Your task to perform on an android device: Open Wikipedia Image 0: 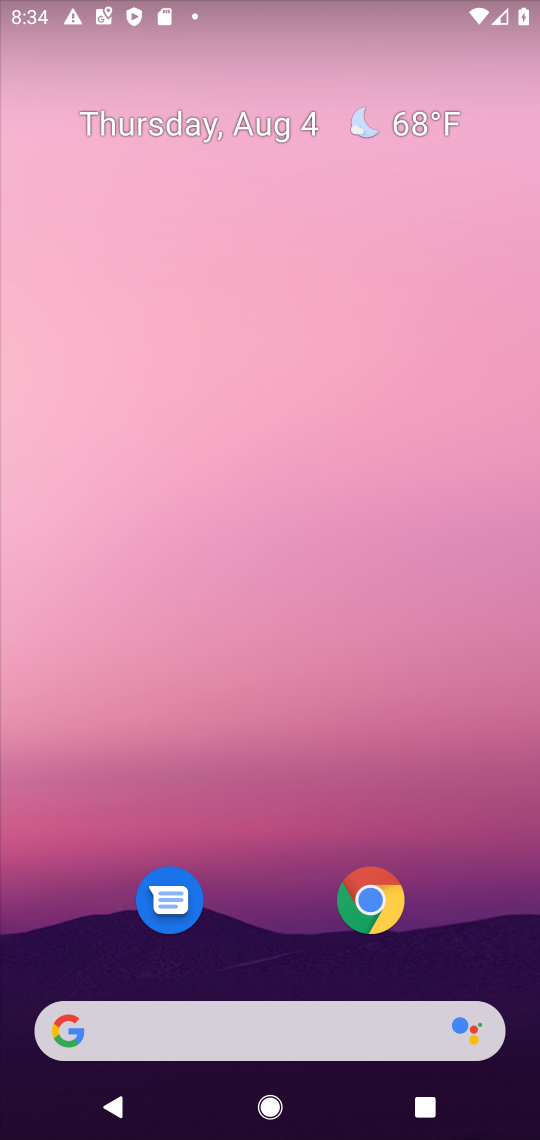
Step 0: click (382, 911)
Your task to perform on an android device: Open Wikipedia Image 1: 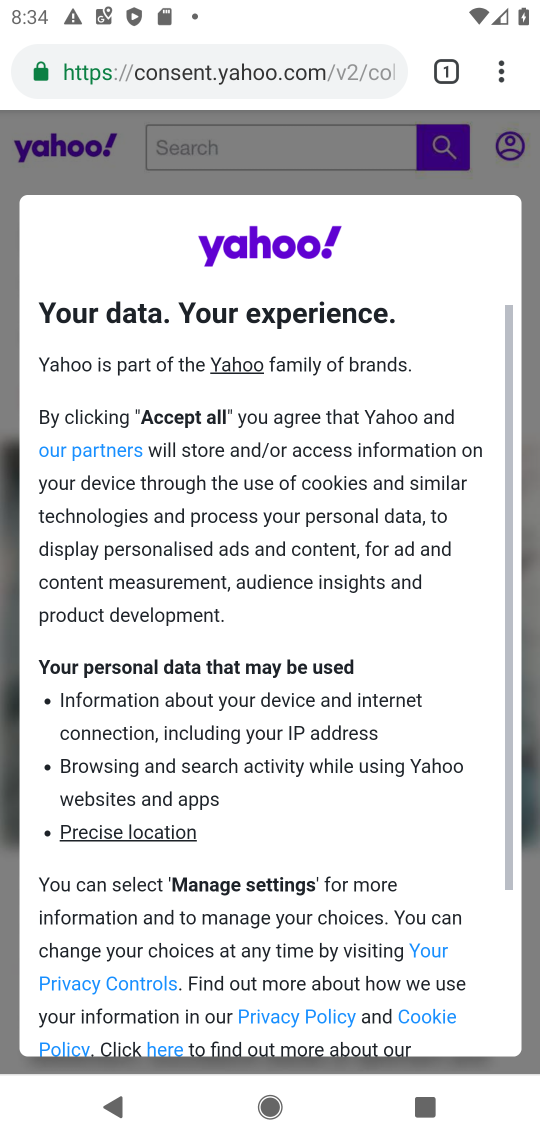
Step 1: press back button
Your task to perform on an android device: Open Wikipedia Image 2: 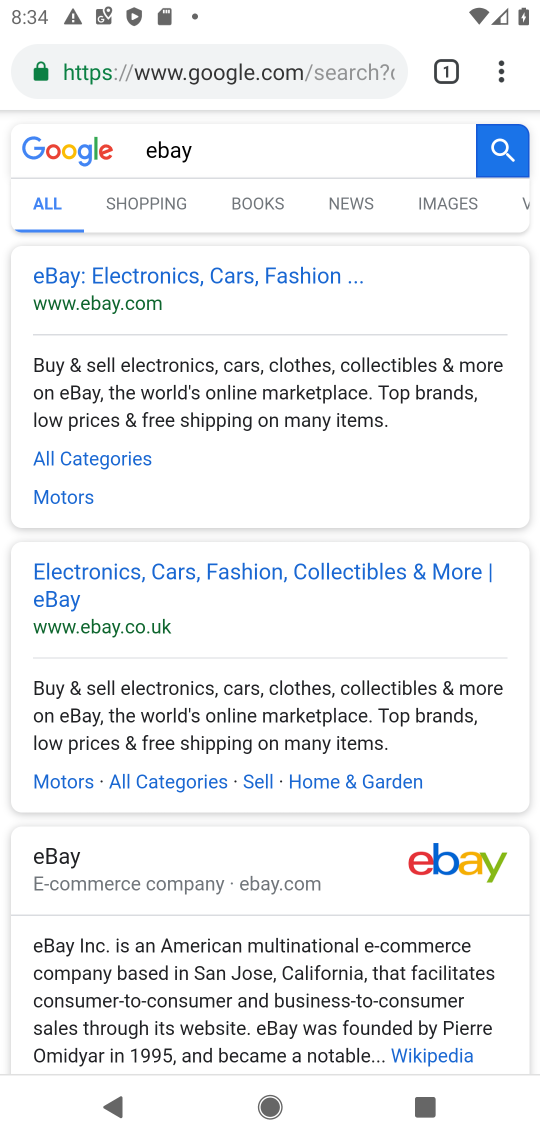
Step 2: press back button
Your task to perform on an android device: Open Wikipedia Image 3: 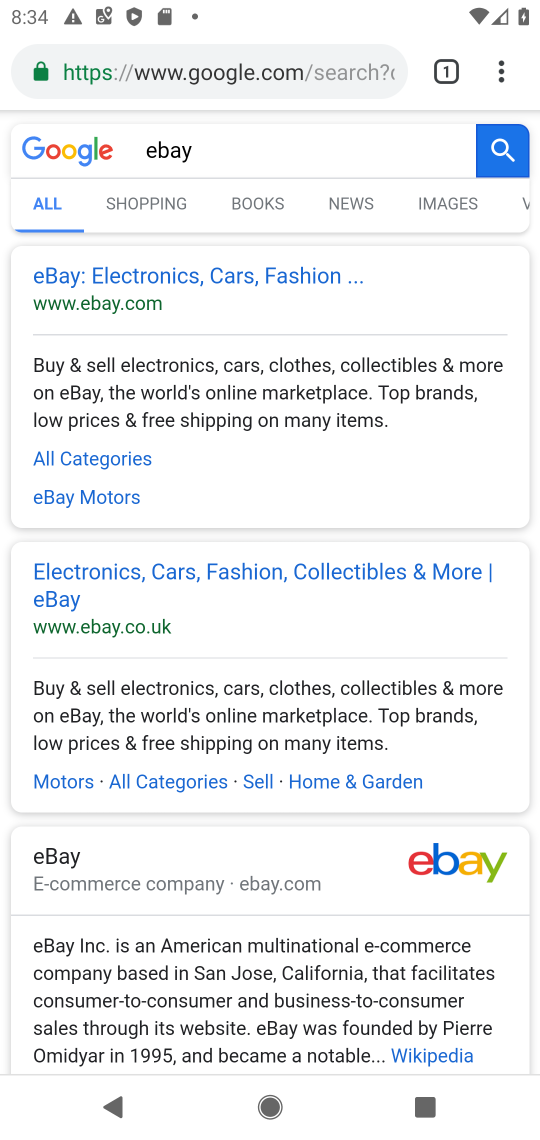
Step 3: click (309, 65)
Your task to perform on an android device: Open Wikipedia Image 4: 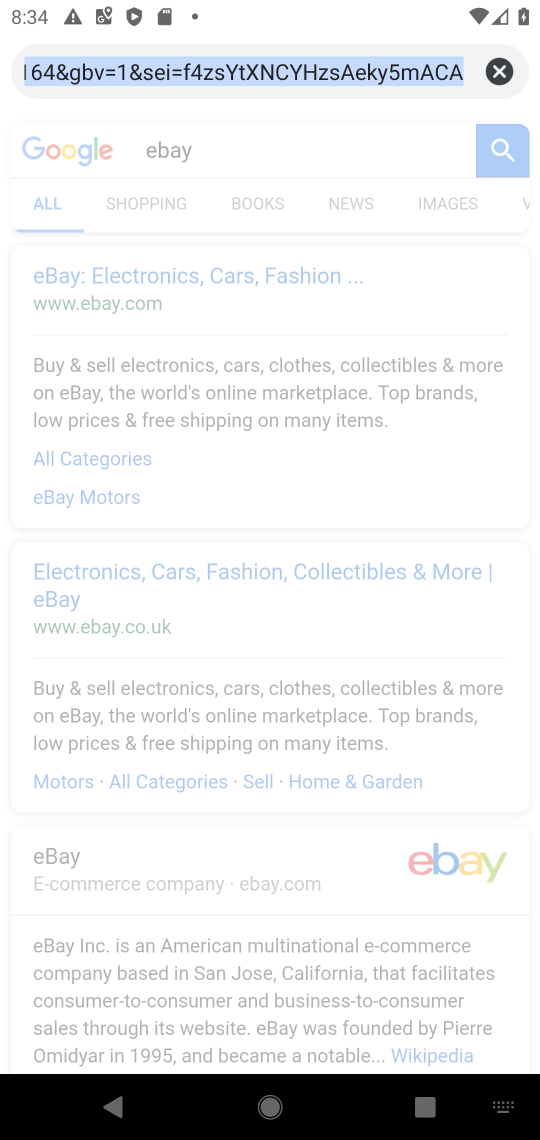
Step 4: type "www."
Your task to perform on an android device: Open Wikipedia Image 5: 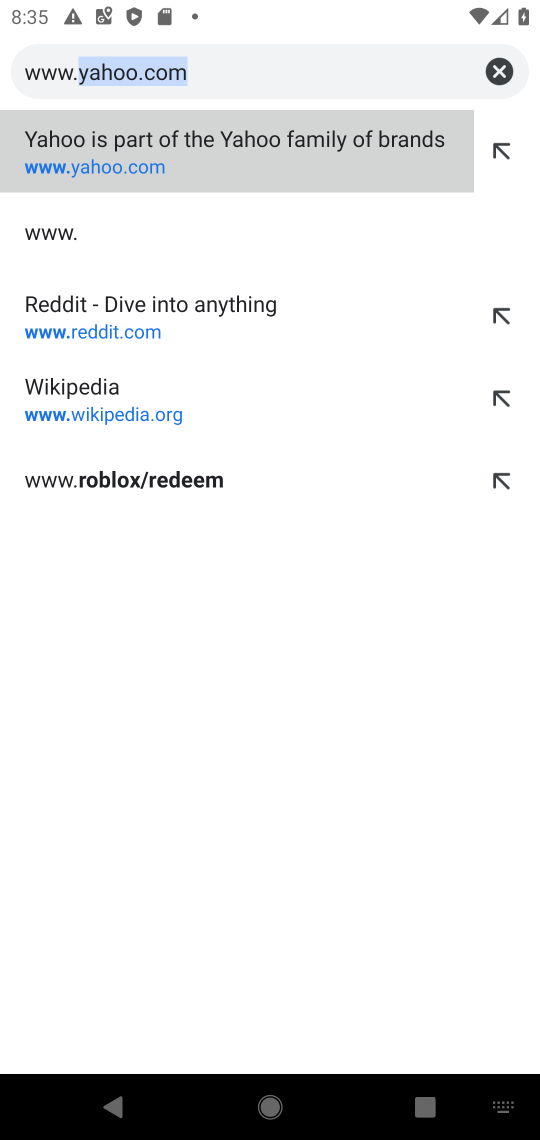
Step 5: type "Wikipedia"
Your task to perform on an android device: Open Wikipedia Image 6: 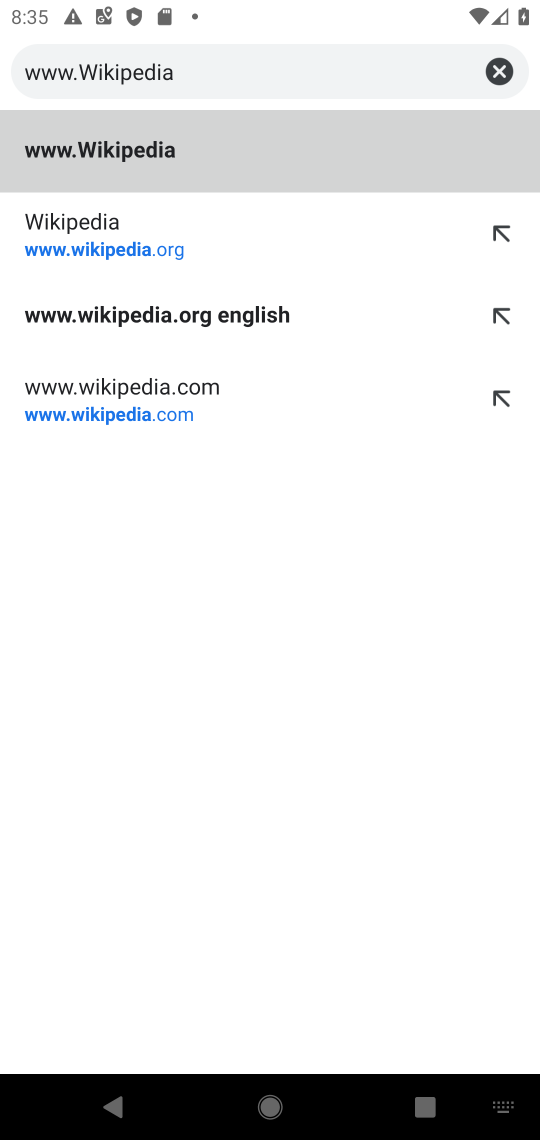
Step 6: click (92, 244)
Your task to perform on an android device: Open Wikipedia Image 7: 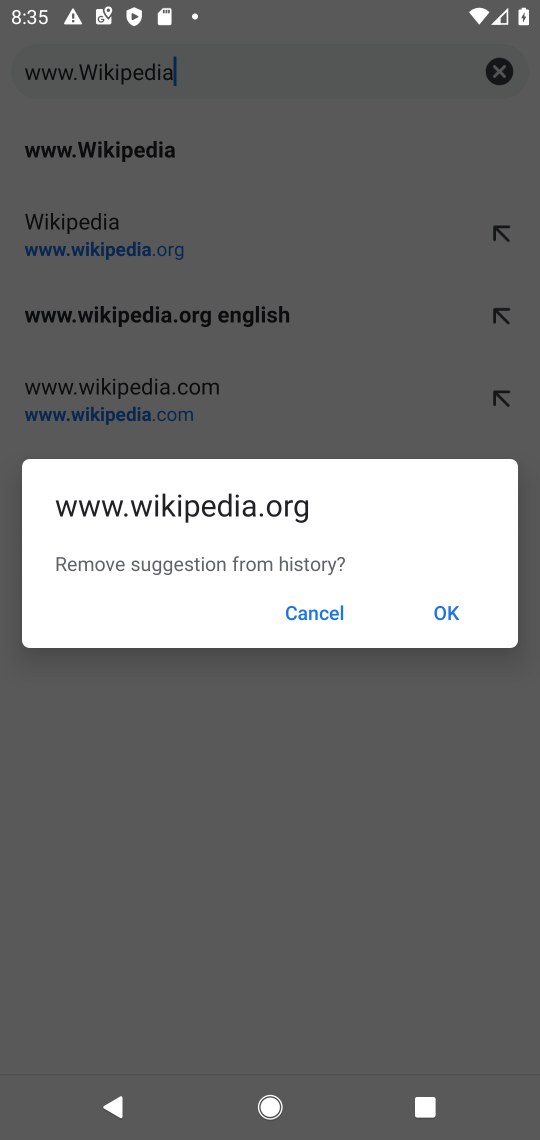
Step 7: click (307, 618)
Your task to perform on an android device: Open Wikipedia Image 8: 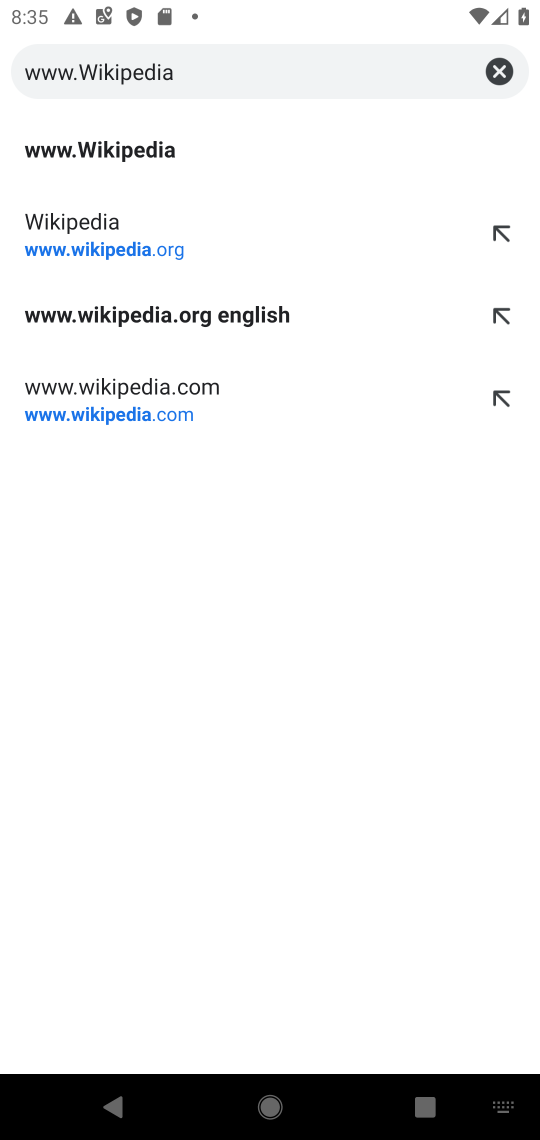
Step 8: click (99, 251)
Your task to perform on an android device: Open Wikipedia Image 9: 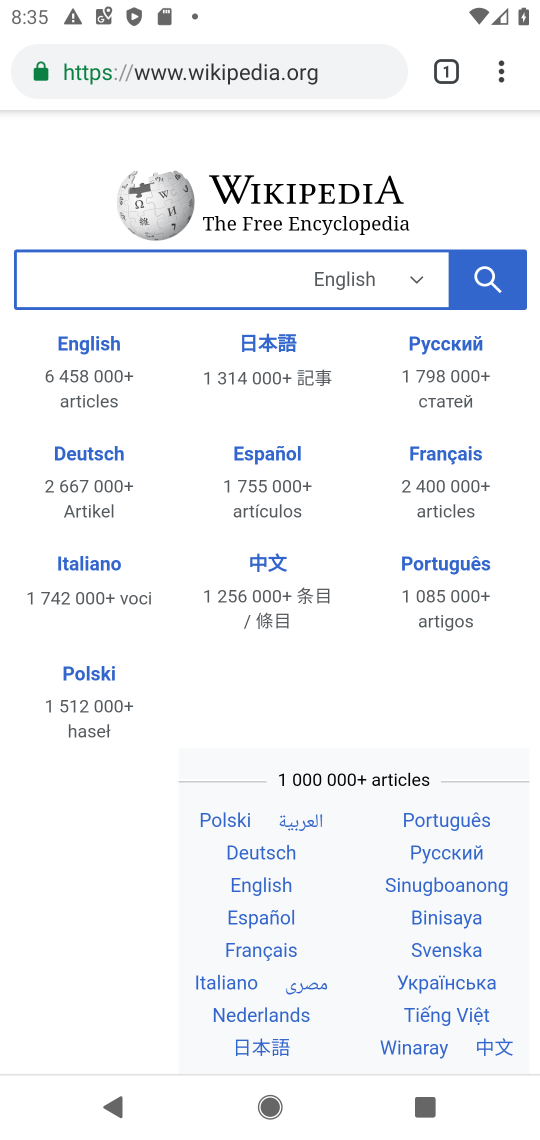
Step 9: task complete